Your task to perform on an android device: uninstall "Spotify: Music and Podcasts" Image 0: 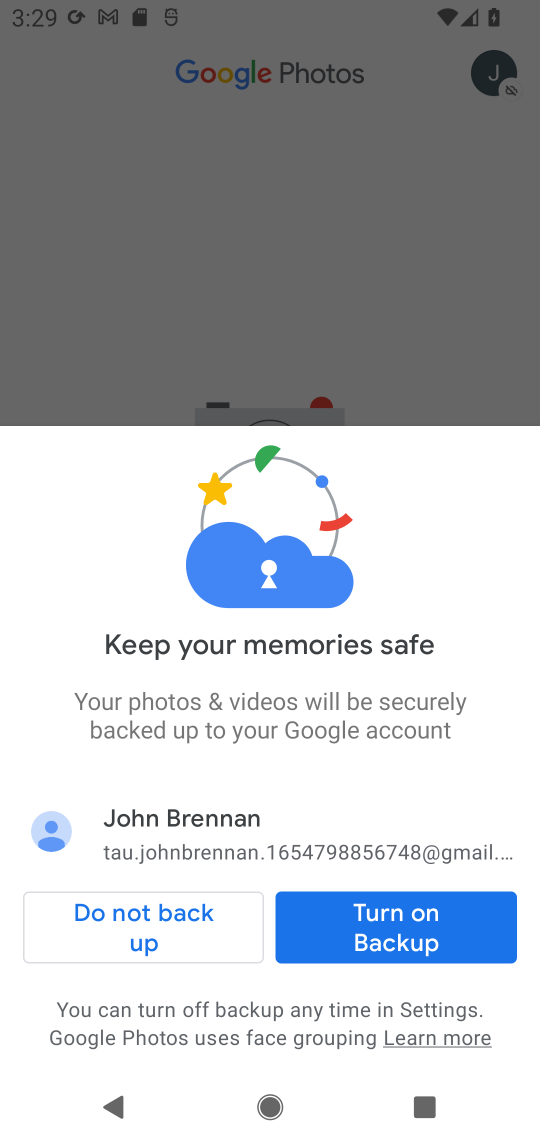
Step 0: click (426, 940)
Your task to perform on an android device: uninstall "Spotify: Music and Podcasts" Image 1: 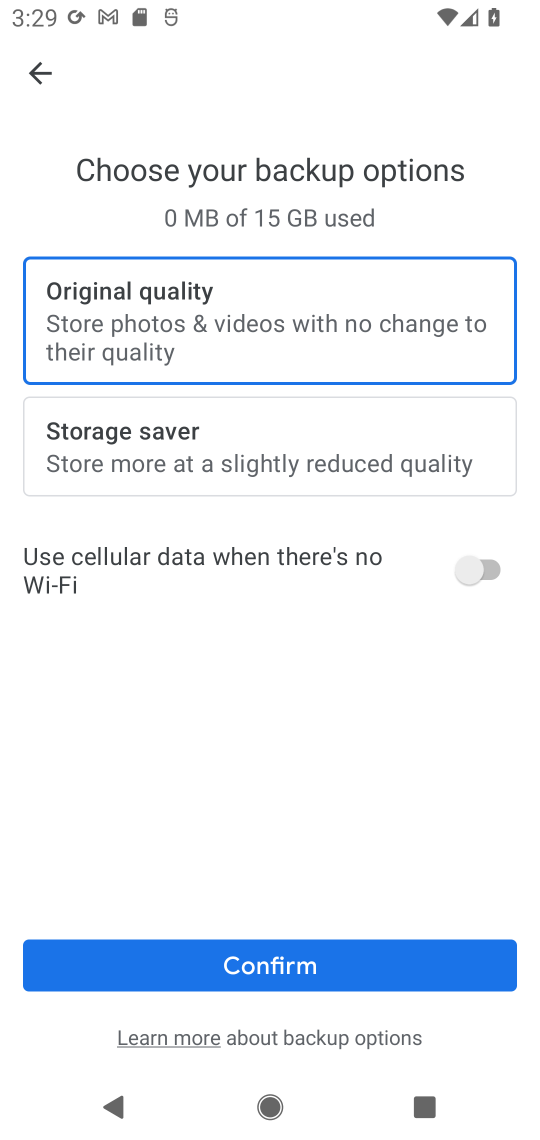
Step 1: press home button
Your task to perform on an android device: uninstall "Spotify: Music and Podcasts" Image 2: 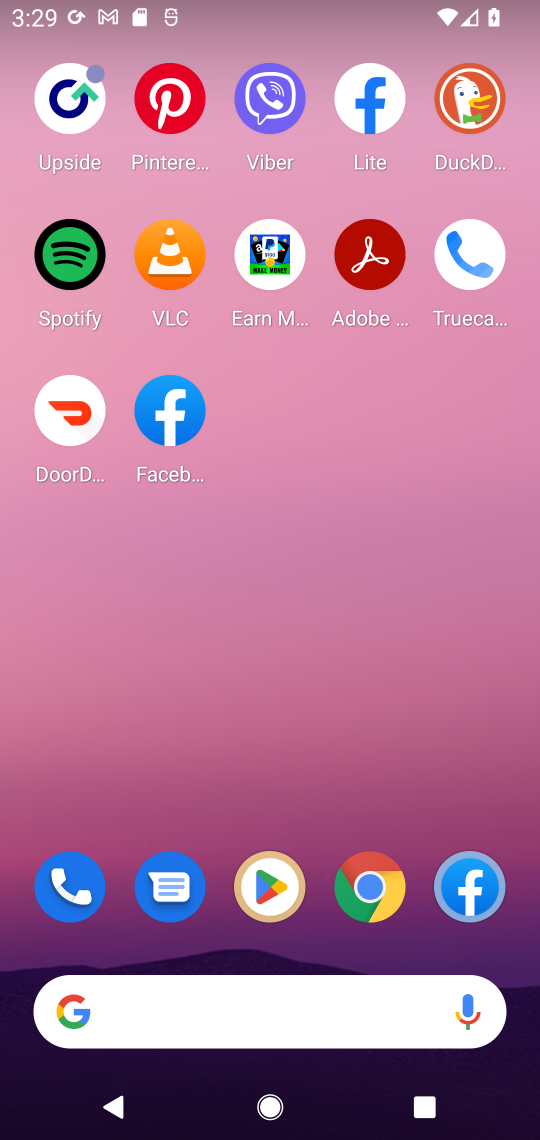
Step 2: click (276, 878)
Your task to perform on an android device: uninstall "Spotify: Music and Podcasts" Image 3: 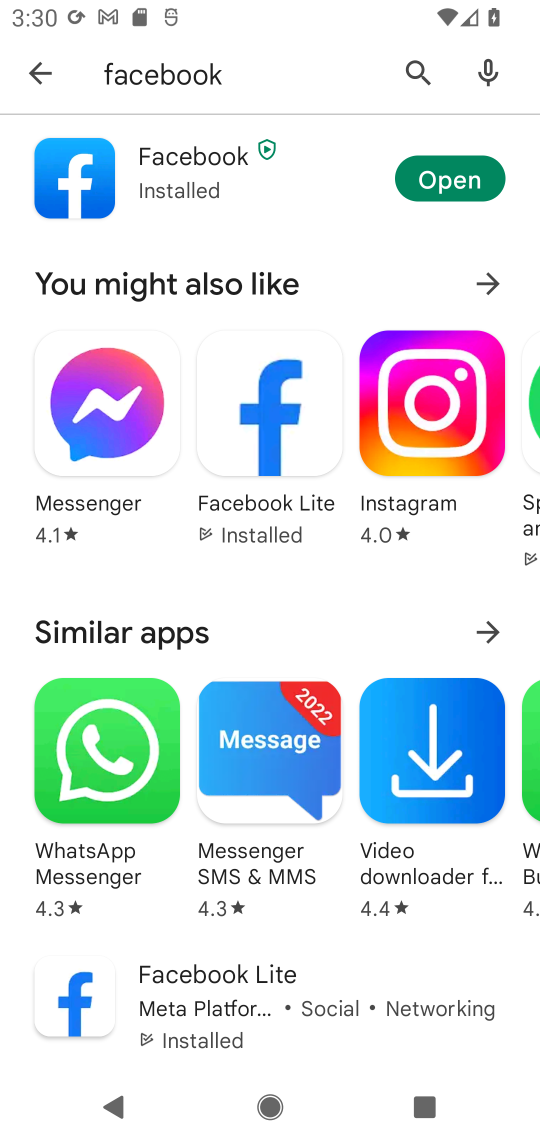
Step 3: click (409, 69)
Your task to perform on an android device: uninstall "Spotify: Music and Podcasts" Image 4: 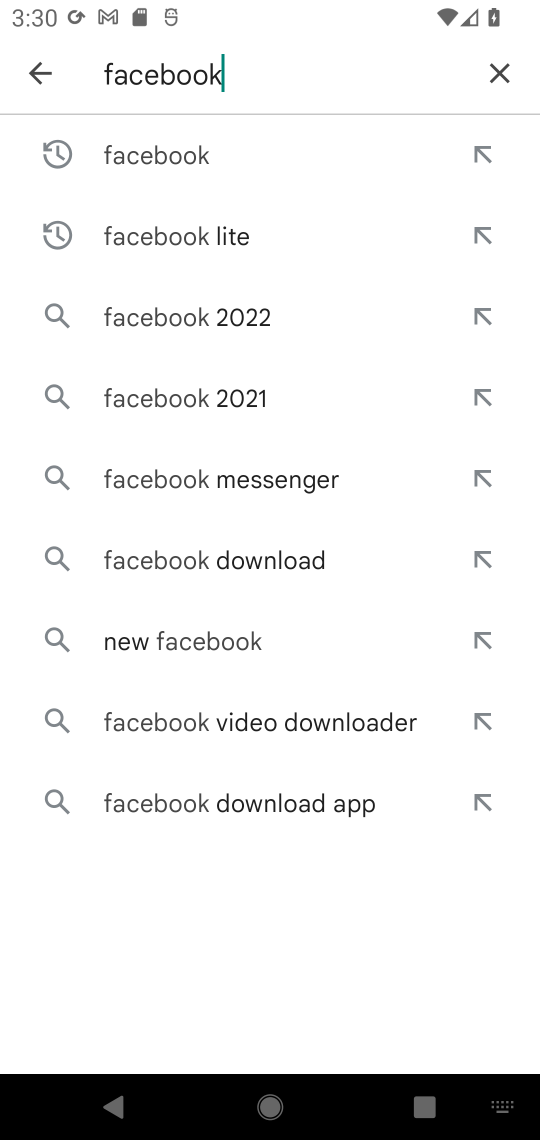
Step 4: click (496, 82)
Your task to perform on an android device: uninstall "Spotify: Music and Podcasts" Image 5: 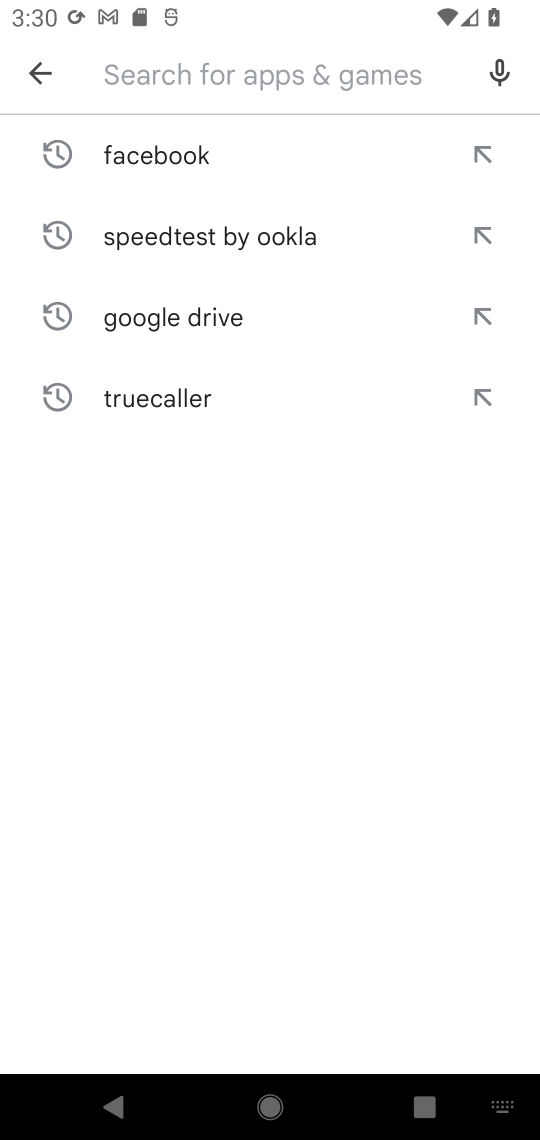
Step 5: type "Spotify: Music and Podcasts"
Your task to perform on an android device: uninstall "Spotify: Music and Podcasts" Image 6: 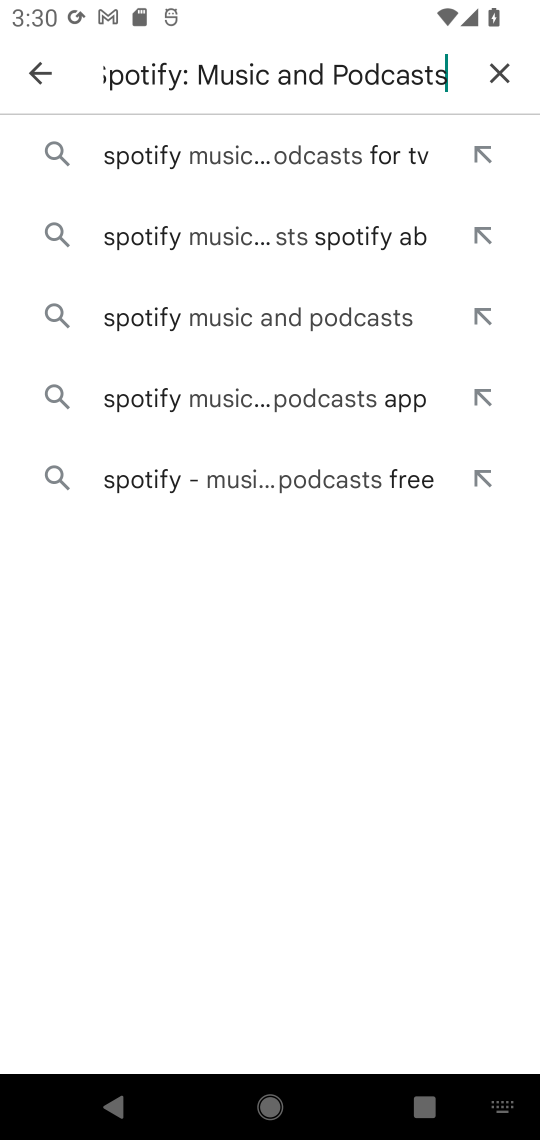
Step 6: click (289, 136)
Your task to perform on an android device: uninstall "Spotify: Music and Podcasts" Image 7: 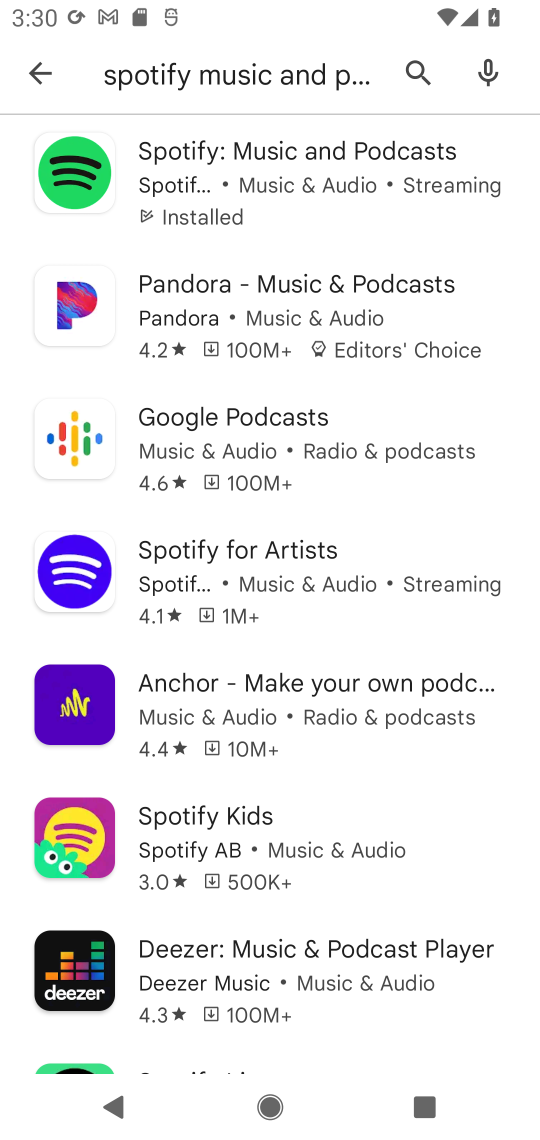
Step 7: click (258, 168)
Your task to perform on an android device: uninstall "Spotify: Music and Podcasts" Image 8: 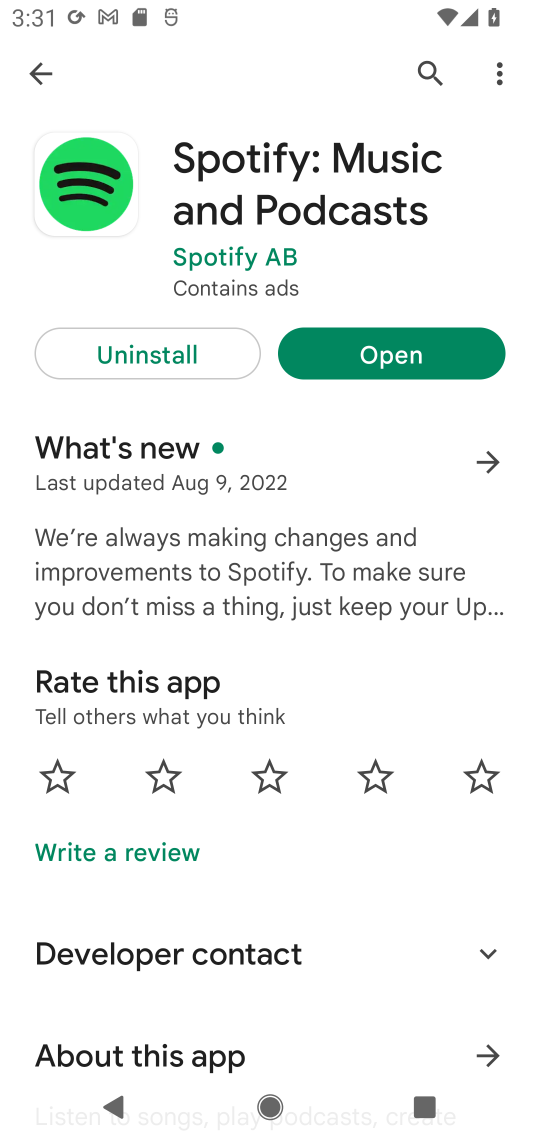
Step 8: click (177, 347)
Your task to perform on an android device: uninstall "Spotify: Music and Podcasts" Image 9: 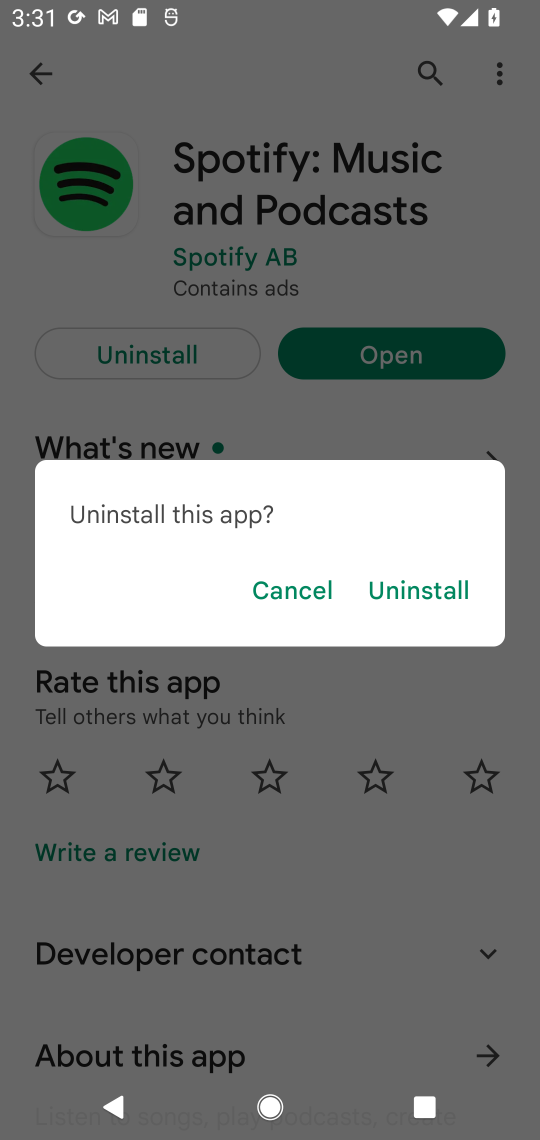
Step 9: click (416, 592)
Your task to perform on an android device: uninstall "Spotify: Music and Podcasts" Image 10: 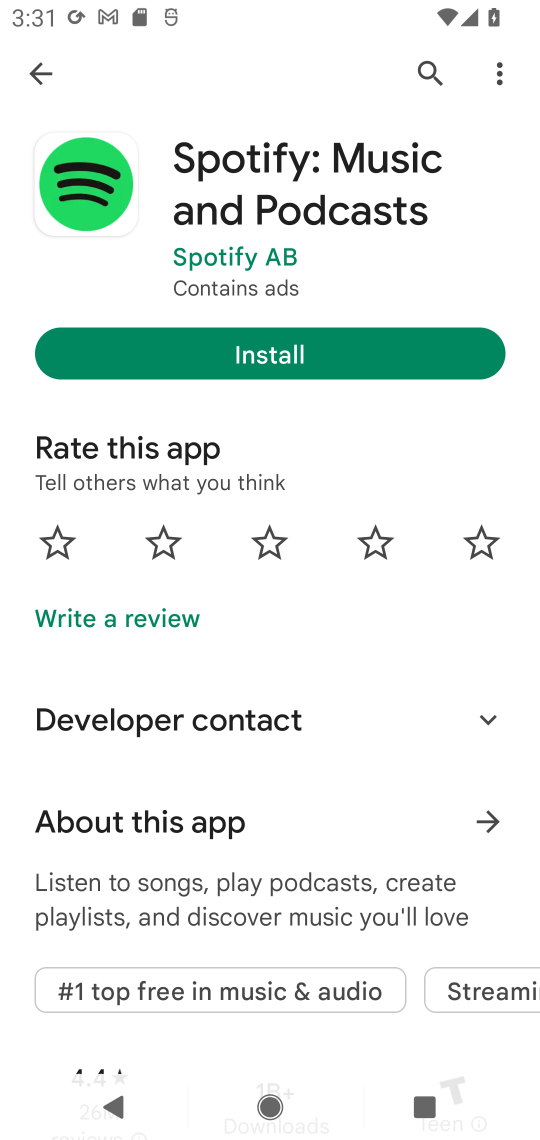
Step 10: task complete